Your task to perform on an android device: Open calendar and show me the second week of next month Image 0: 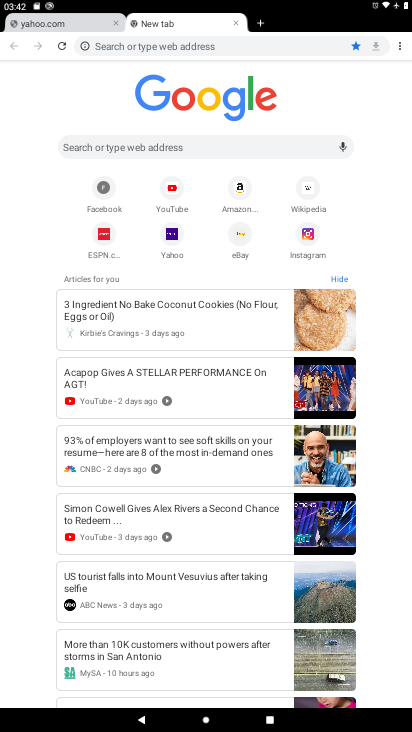
Step 0: press home button
Your task to perform on an android device: Open calendar and show me the second week of next month Image 1: 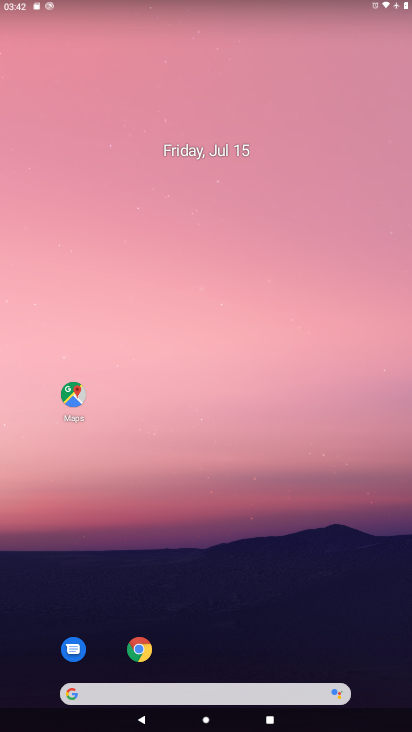
Step 1: drag from (362, 583) to (343, 118)
Your task to perform on an android device: Open calendar and show me the second week of next month Image 2: 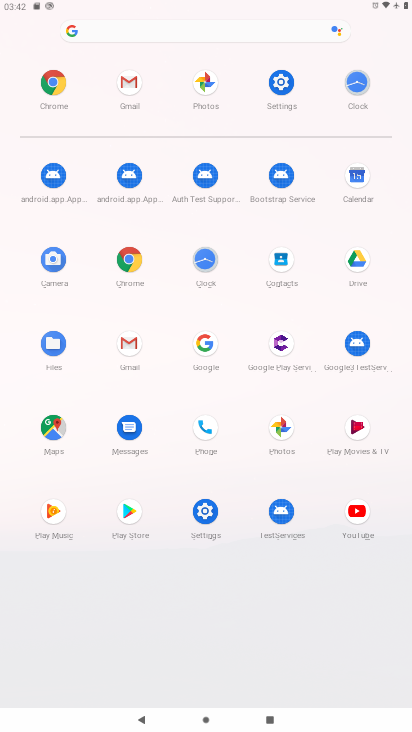
Step 2: click (356, 173)
Your task to perform on an android device: Open calendar and show me the second week of next month Image 3: 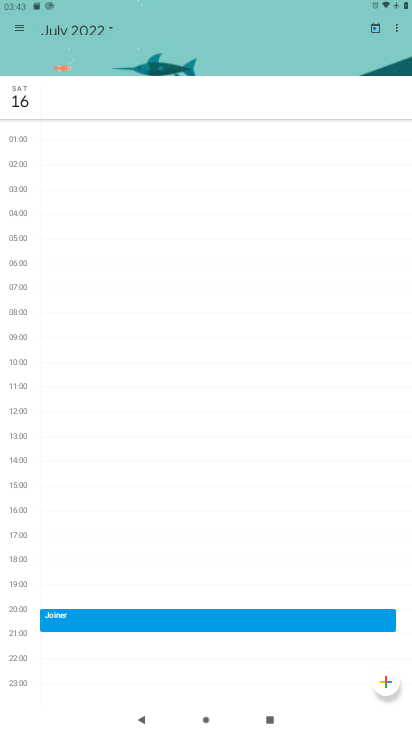
Step 3: click (16, 28)
Your task to perform on an android device: Open calendar and show me the second week of next month Image 4: 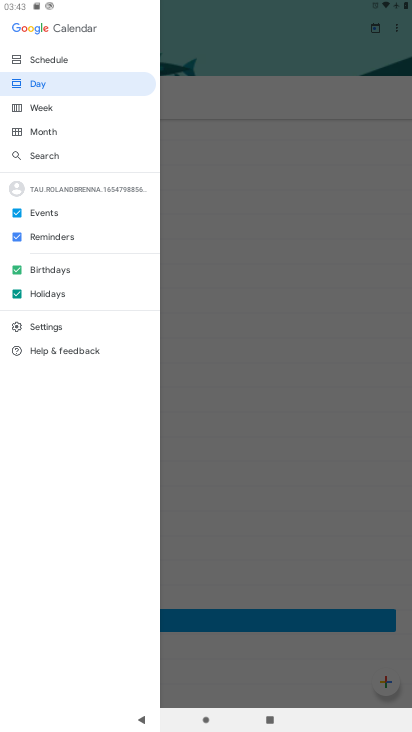
Step 4: click (42, 107)
Your task to perform on an android device: Open calendar and show me the second week of next month Image 5: 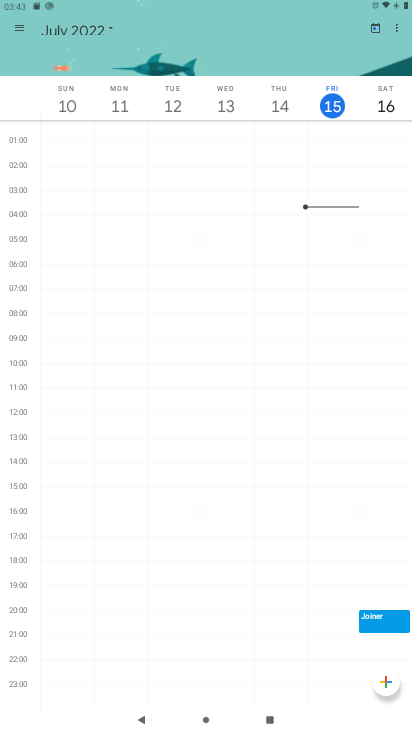
Step 5: click (106, 29)
Your task to perform on an android device: Open calendar and show me the second week of next month Image 6: 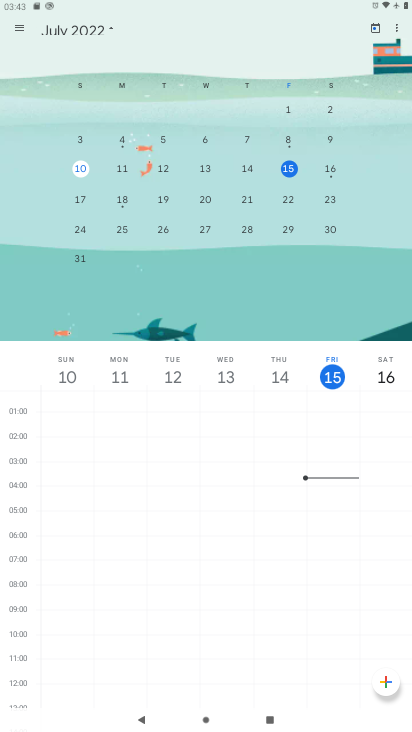
Step 6: drag from (329, 219) to (70, 210)
Your task to perform on an android device: Open calendar and show me the second week of next month Image 7: 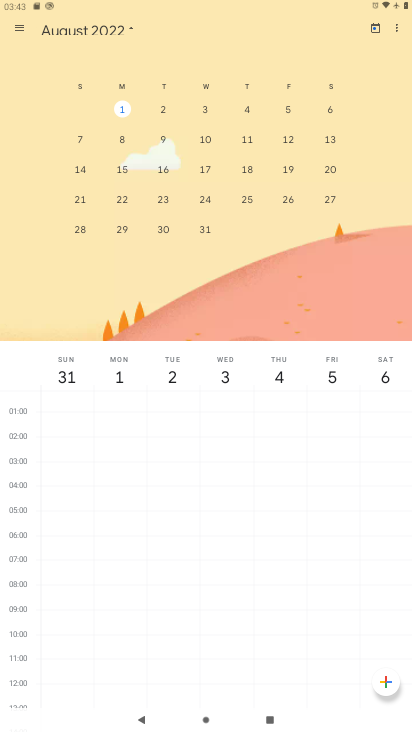
Step 7: click (77, 166)
Your task to perform on an android device: Open calendar and show me the second week of next month Image 8: 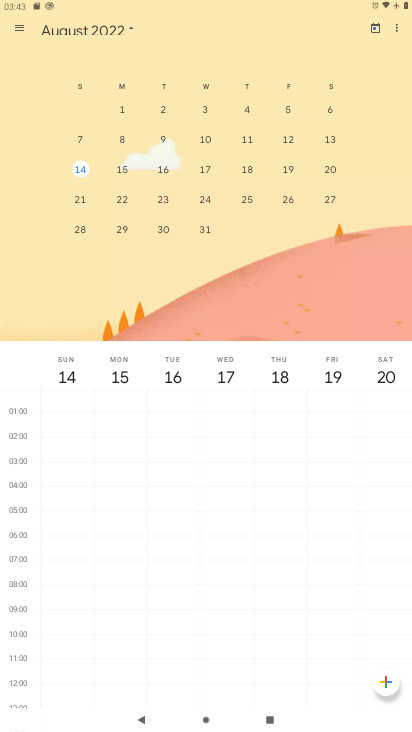
Step 8: task complete